Your task to perform on an android device: Open Reddit.com Image 0: 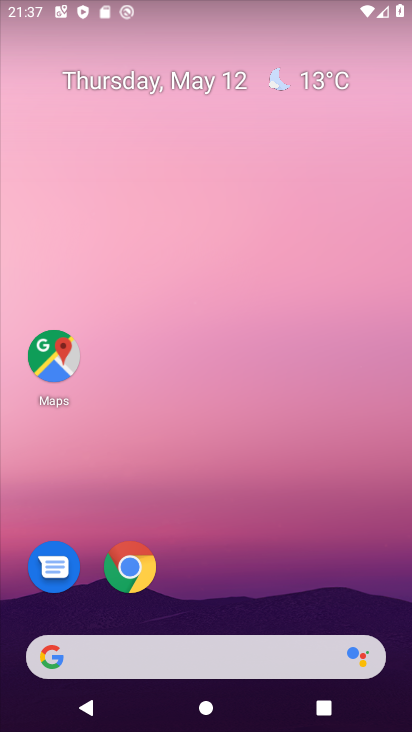
Step 0: drag from (220, 599) to (233, 0)
Your task to perform on an android device: Open Reddit.com Image 1: 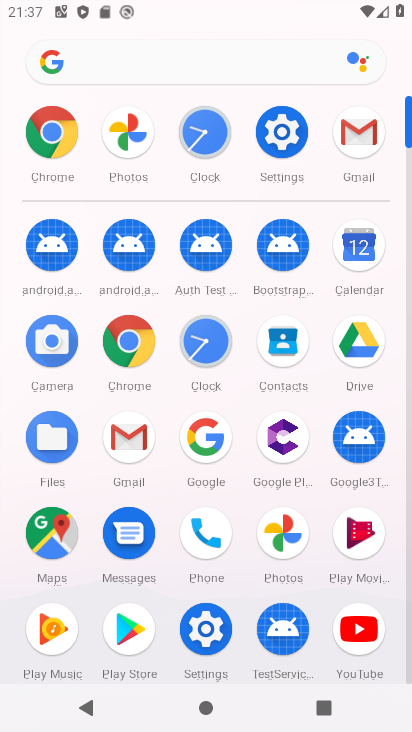
Step 1: click (53, 137)
Your task to perform on an android device: Open Reddit.com Image 2: 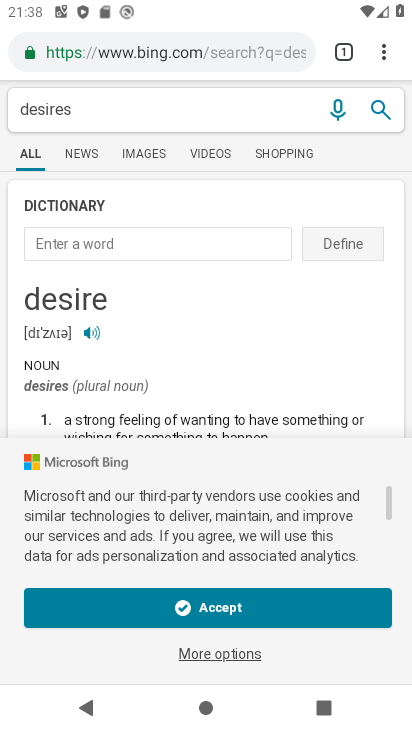
Step 2: click (343, 56)
Your task to perform on an android device: Open Reddit.com Image 3: 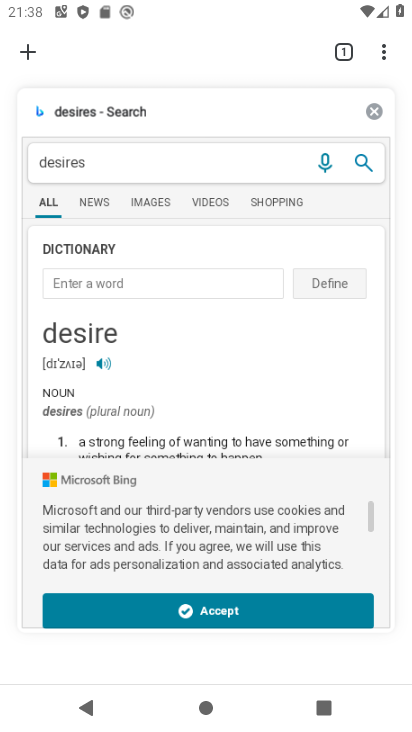
Step 3: click (373, 110)
Your task to perform on an android device: Open Reddit.com Image 4: 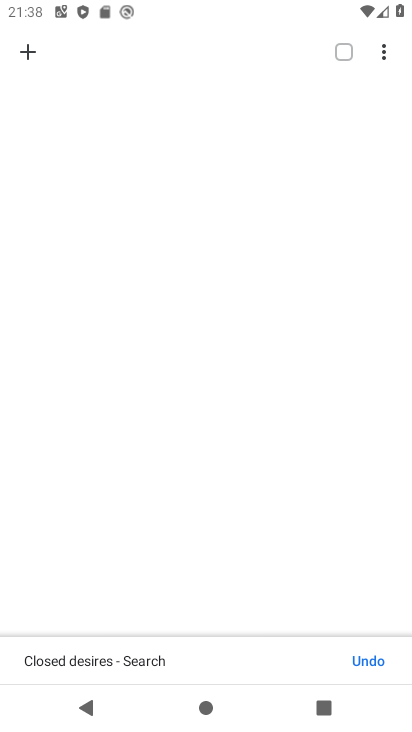
Step 4: click (28, 46)
Your task to perform on an android device: Open Reddit.com Image 5: 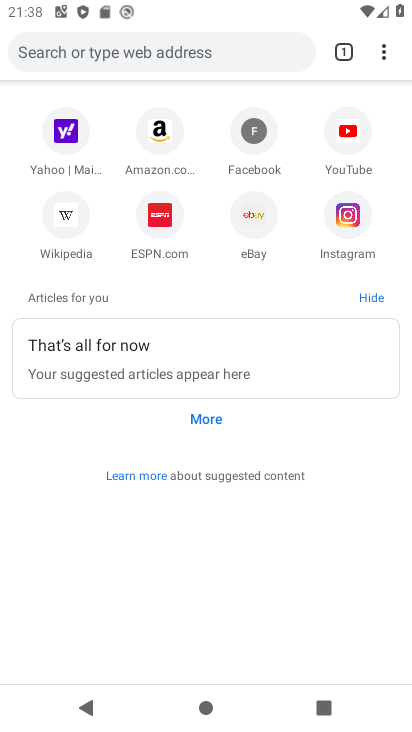
Step 5: click (120, 50)
Your task to perform on an android device: Open Reddit.com Image 6: 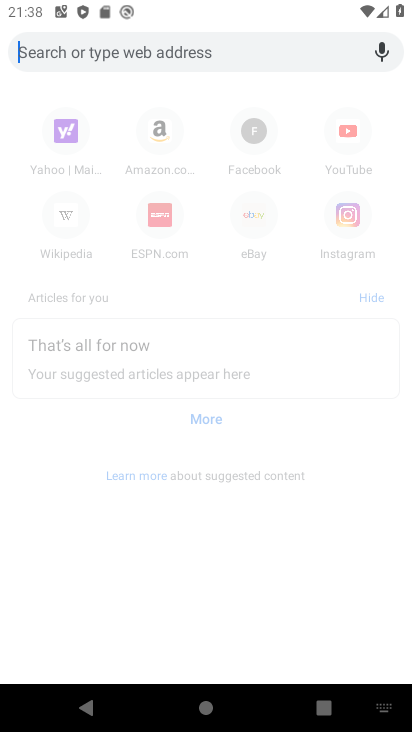
Step 6: type "reddit"
Your task to perform on an android device: Open Reddit.com Image 7: 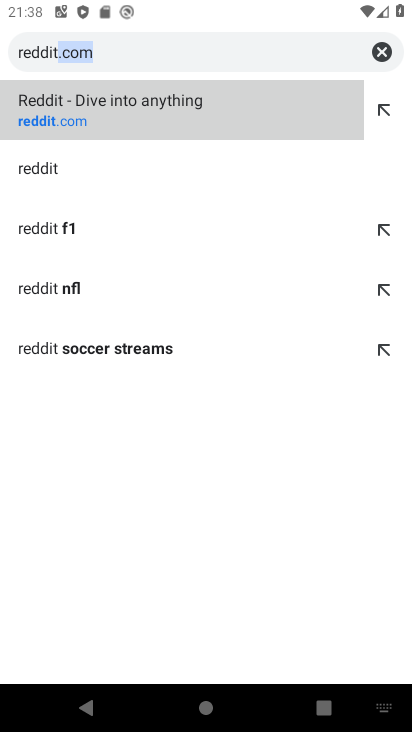
Step 7: click (80, 116)
Your task to perform on an android device: Open Reddit.com Image 8: 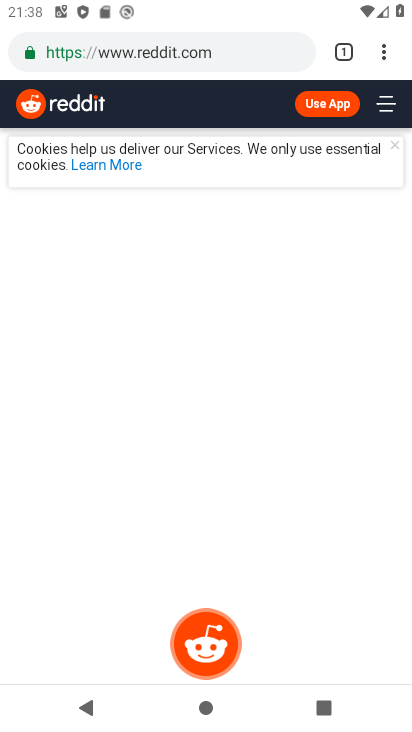
Step 8: click (383, 115)
Your task to perform on an android device: Open Reddit.com Image 9: 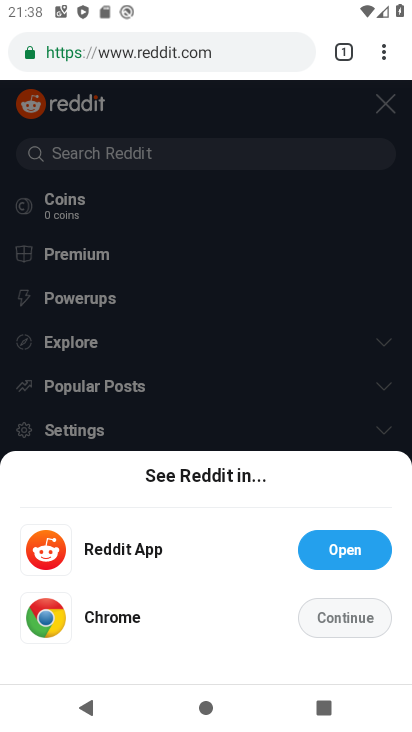
Step 9: click (327, 605)
Your task to perform on an android device: Open Reddit.com Image 10: 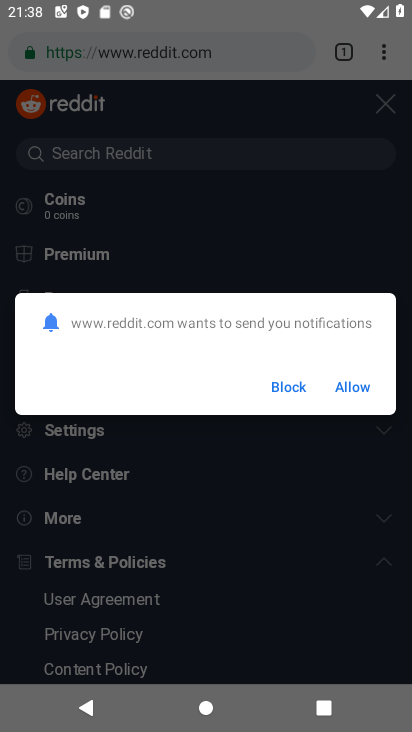
Step 10: click (288, 382)
Your task to perform on an android device: Open Reddit.com Image 11: 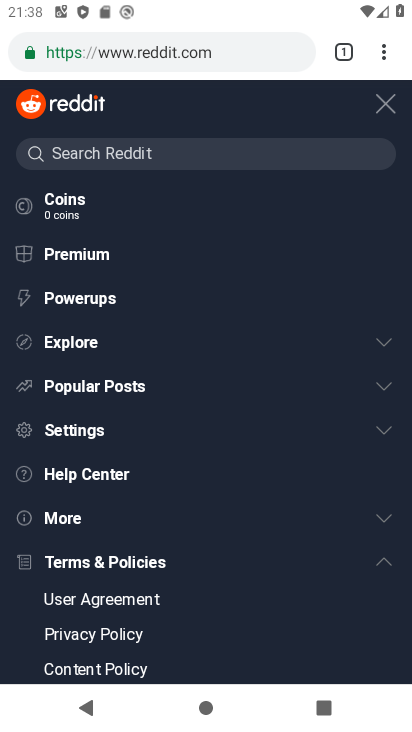
Step 11: click (394, 97)
Your task to perform on an android device: Open Reddit.com Image 12: 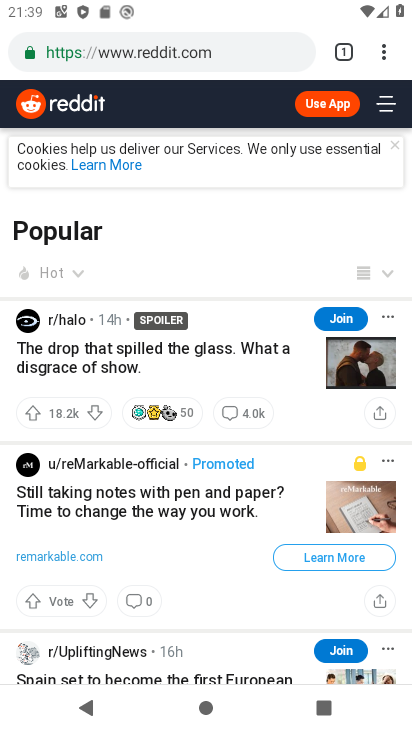
Step 12: task complete